Your task to perform on an android device: Open Maps and search for coffee Image 0: 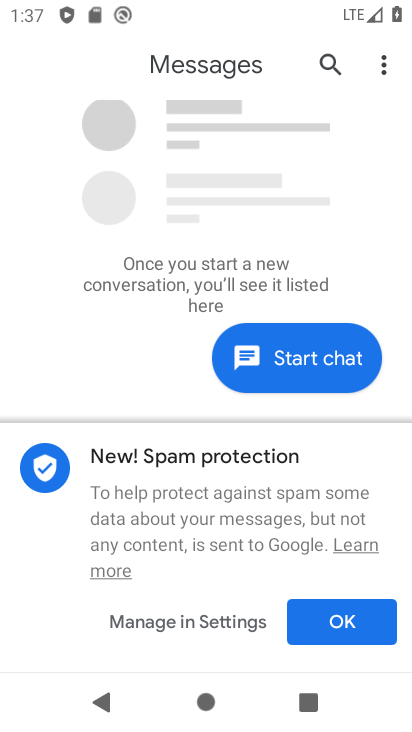
Step 0: press home button
Your task to perform on an android device: Open Maps and search for coffee Image 1: 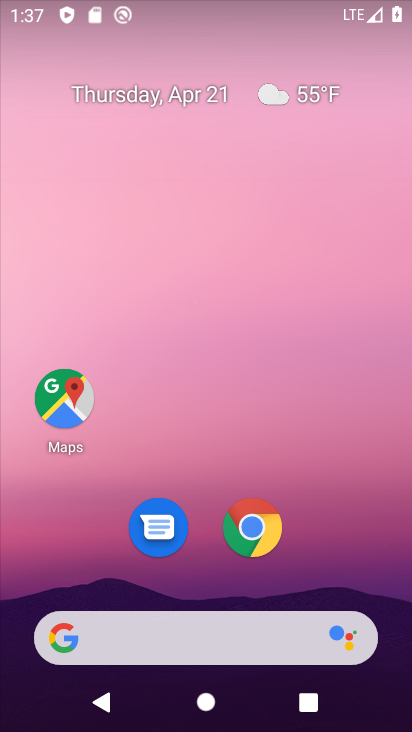
Step 1: drag from (352, 528) to (362, 50)
Your task to perform on an android device: Open Maps and search for coffee Image 2: 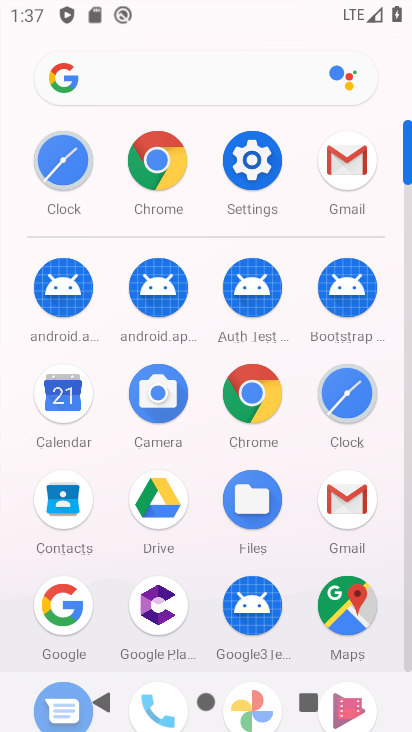
Step 2: click (357, 604)
Your task to perform on an android device: Open Maps and search for coffee Image 3: 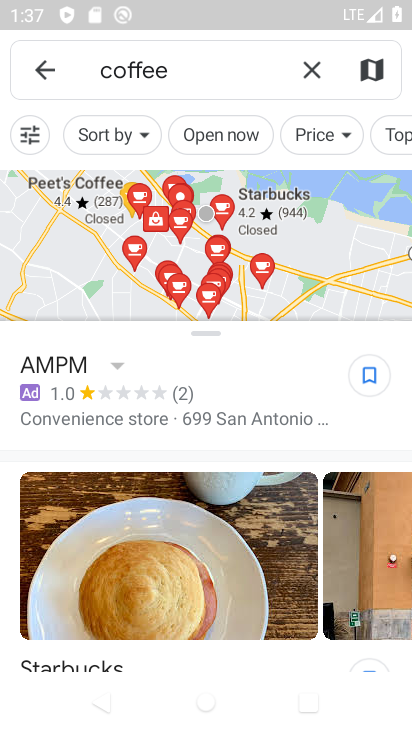
Step 3: task complete